Your task to perform on an android device: Open location settings Image 0: 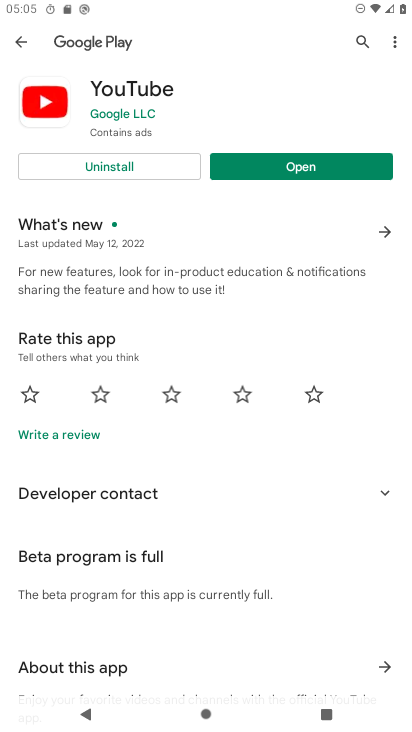
Step 0: press home button
Your task to perform on an android device: Open location settings Image 1: 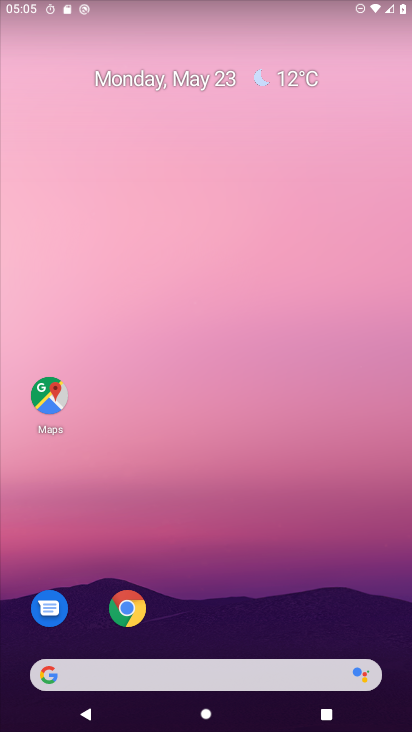
Step 1: drag from (305, 547) to (243, 15)
Your task to perform on an android device: Open location settings Image 2: 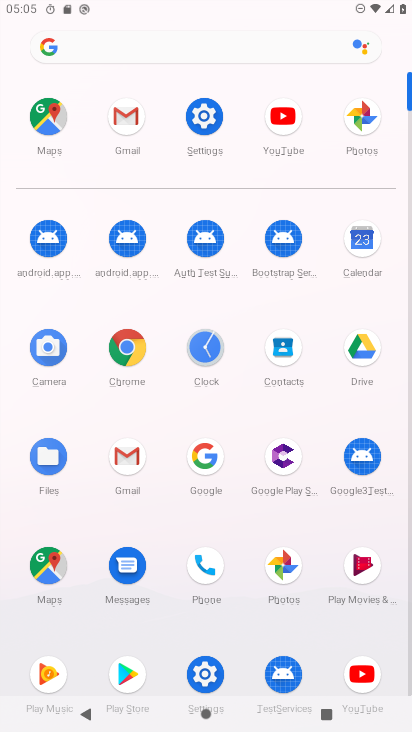
Step 2: click (201, 113)
Your task to perform on an android device: Open location settings Image 3: 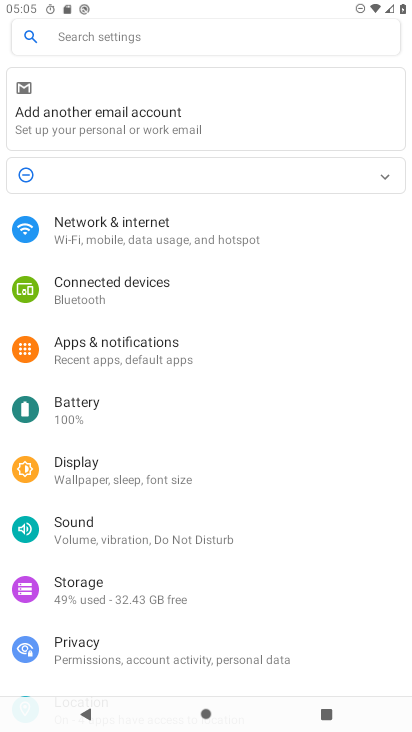
Step 3: drag from (226, 547) to (235, 128)
Your task to perform on an android device: Open location settings Image 4: 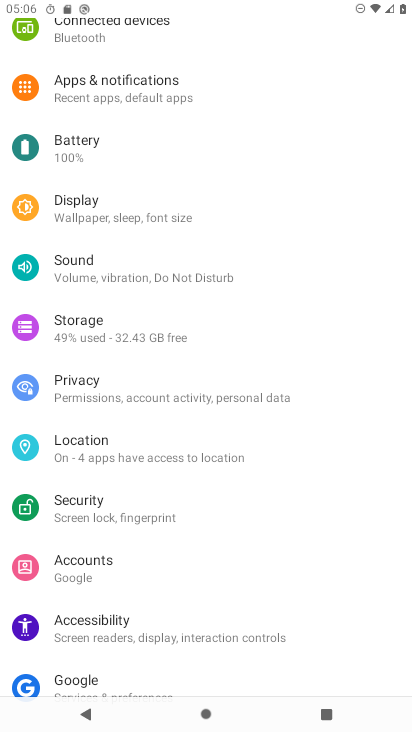
Step 4: click (152, 449)
Your task to perform on an android device: Open location settings Image 5: 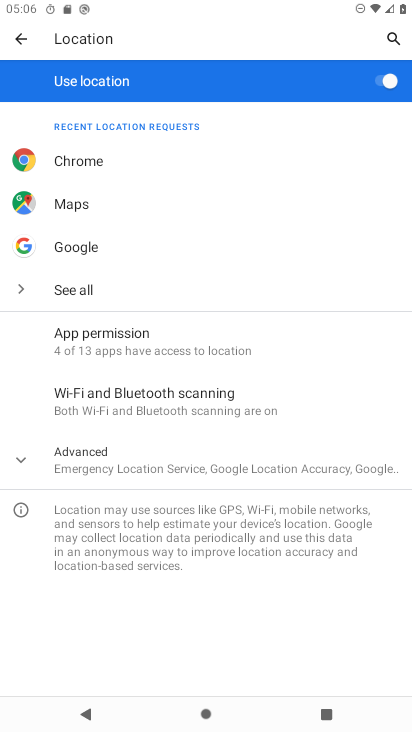
Step 5: task complete